Your task to perform on an android device: Go to Android settings Image 0: 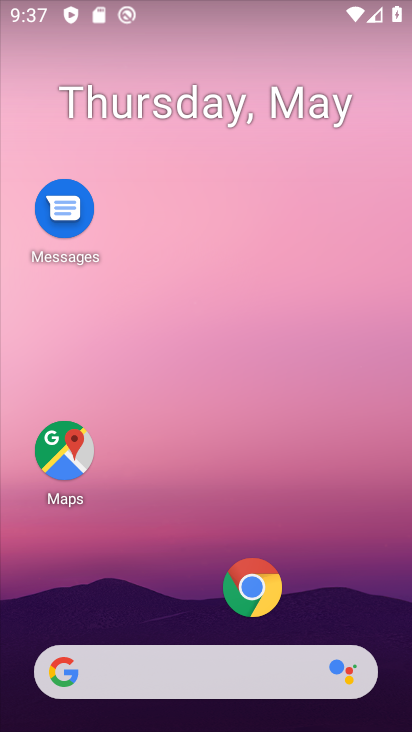
Step 0: drag from (195, 619) to (244, 4)
Your task to perform on an android device: Go to Android settings Image 1: 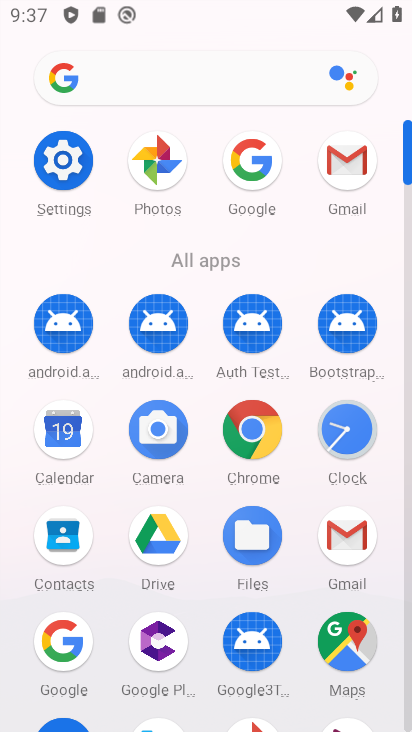
Step 1: click (63, 172)
Your task to perform on an android device: Go to Android settings Image 2: 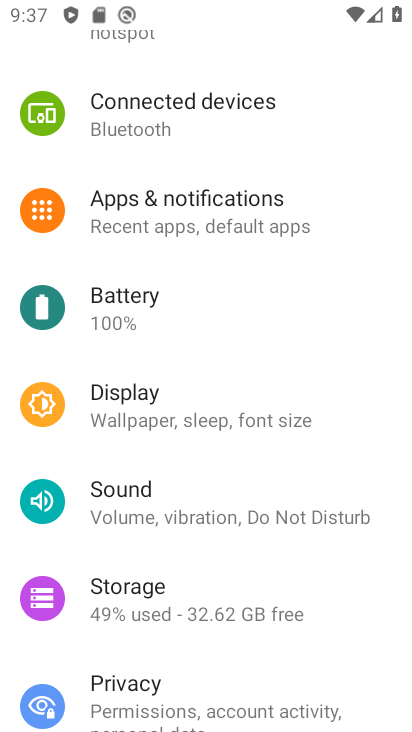
Step 2: drag from (173, 151) to (166, 200)
Your task to perform on an android device: Go to Android settings Image 3: 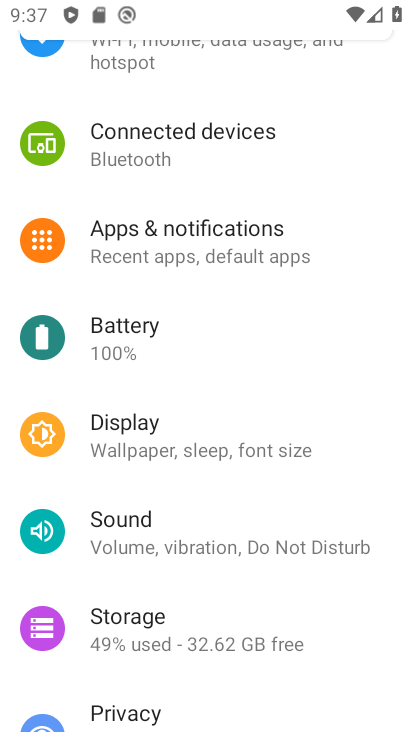
Step 3: drag from (182, 471) to (161, 0)
Your task to perform on an android device: Go to Android settings Image 4: 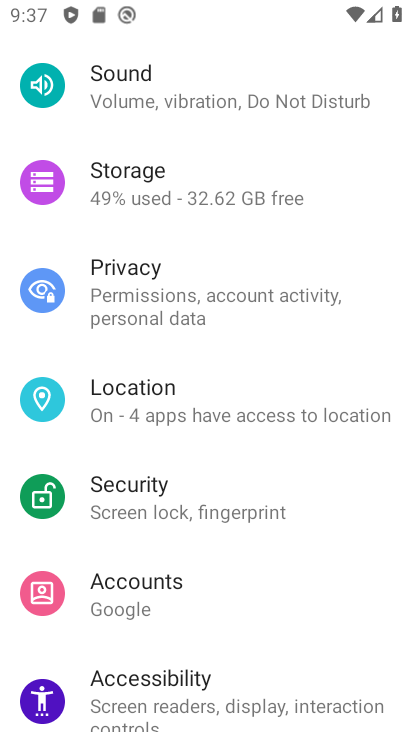
Step 4: drag from (181, 566) to (161, 109)
Your task to perform on an android device: Go to Android settings Image 5: 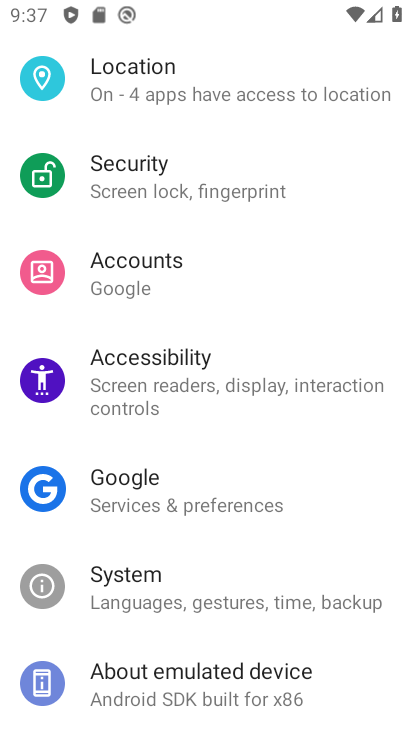
Step 5: click (200, 652)
Your task to perform on an android device: Go to Android settings Image 6: 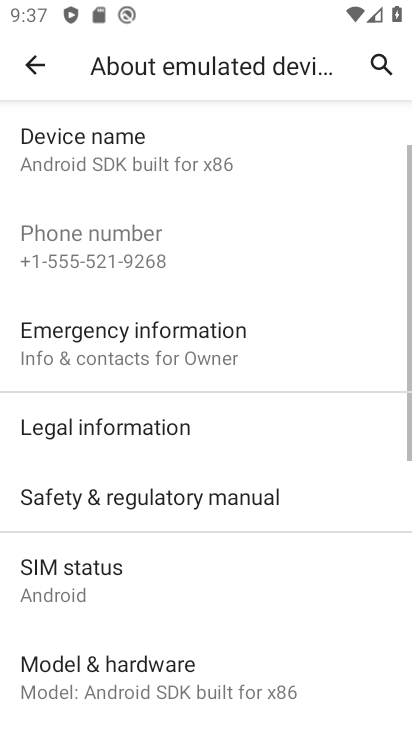
Step 6: task complete